Your task to perform on an android device: check out phone information Image 0: 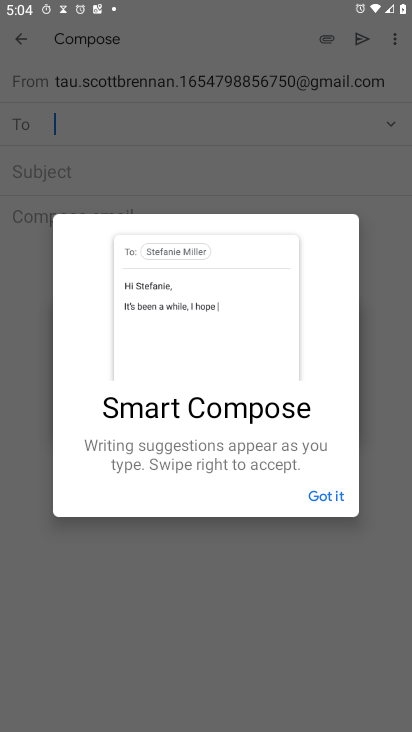
Step 0: press home button
Your task to perform on an android device: check out phone information Image 1: 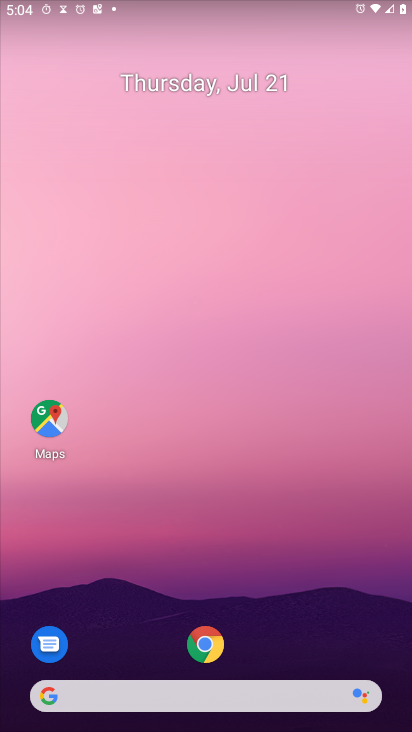
Step 1: drag from (356, 597) to (354, 7)
Your task to perform on an android device: check out phone information Image 2: 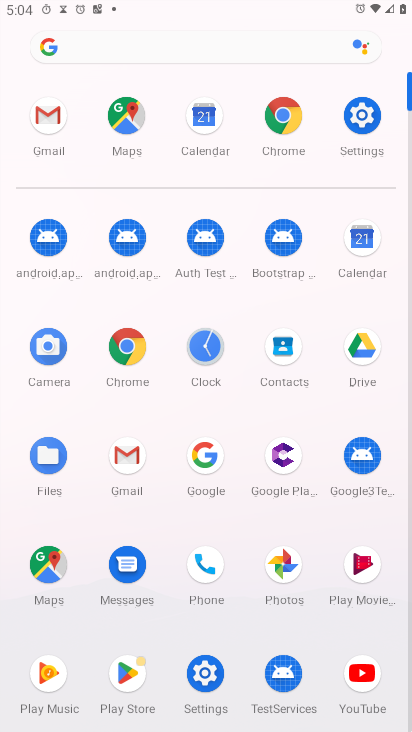
Step 2: click (357, 112)
Your task to perform on an android device: check out phone information Image 3: 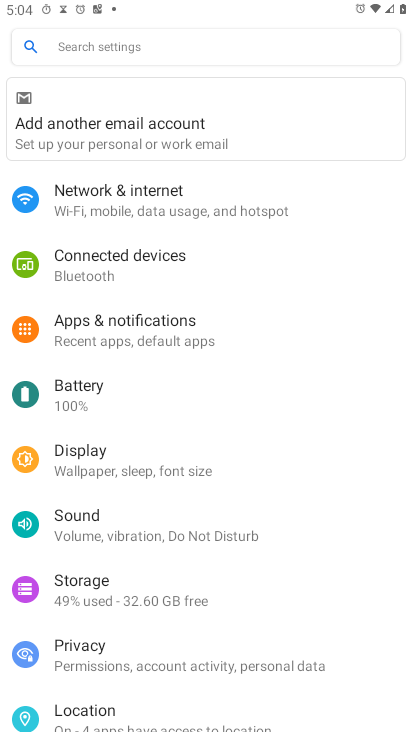
Step 3: drag from (247, 631) to (341, 182)
Your task to perform on an android device: check out phone information Image 4: 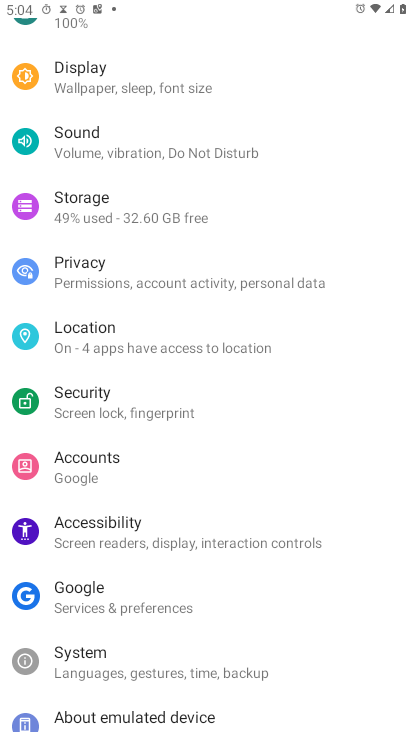
Step 4: click (142, 717)
Your task to perform on an android device: check out phone information Image 5: 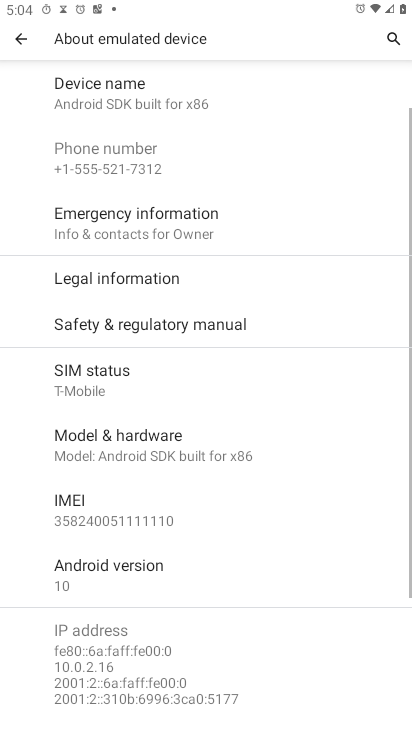
Step 5: task complete